Your task to perform on an android device: turn on notifications settings in the gmail app Image 0: 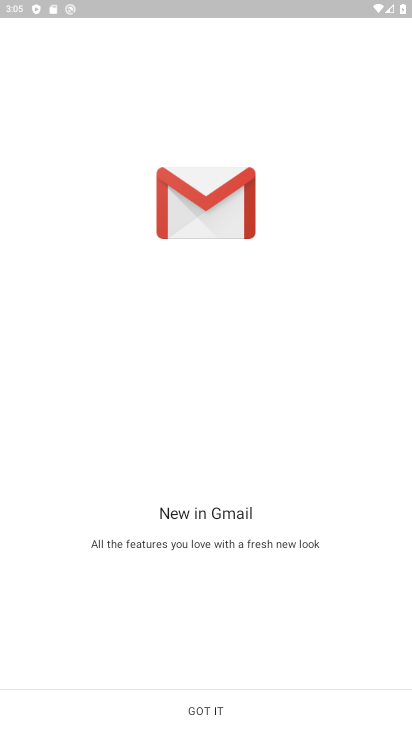
Step 0: press home button
Your task to perform on an android device: turn on notifications settings in the gmail app Image 1: 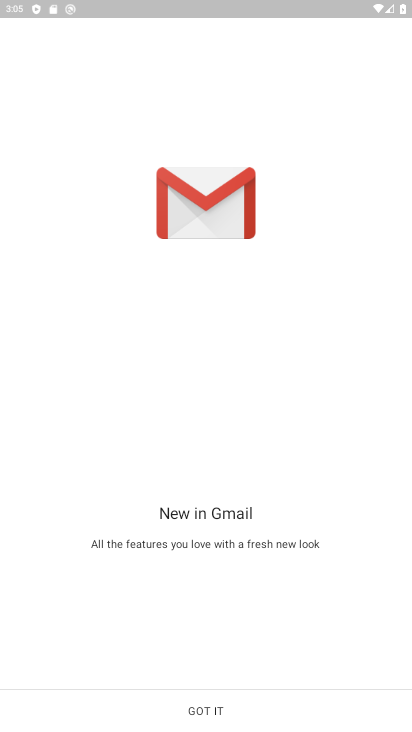
Step 1: click (264, 216)
Your task to perform on an android device: turn on notifications settings in the gmail app Image 2: 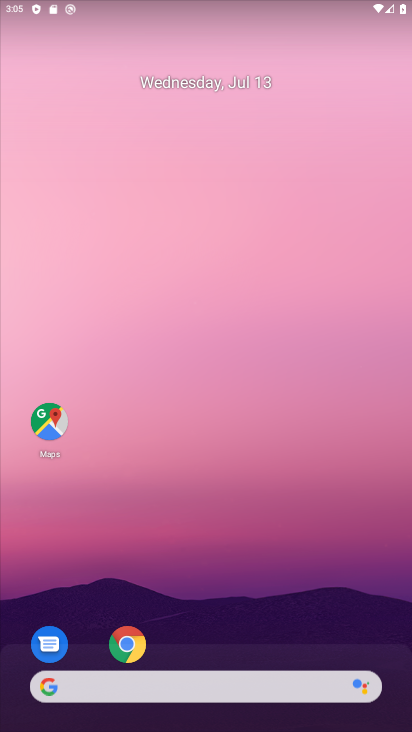
Step 2: drag from (199, 652) to (276, 55)
Your task to perform on an android device: turn on notifications settings in the gmail app Image 3: 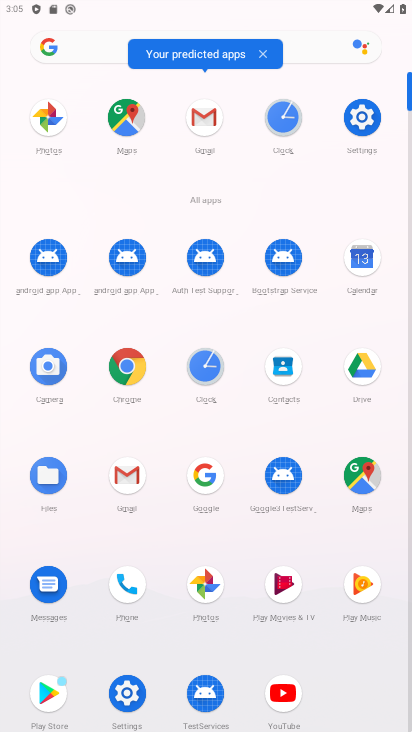
Step 3: click (125, 484)
Your task to perform on an android device: turn on notifications settings in the gmail app Image 4: 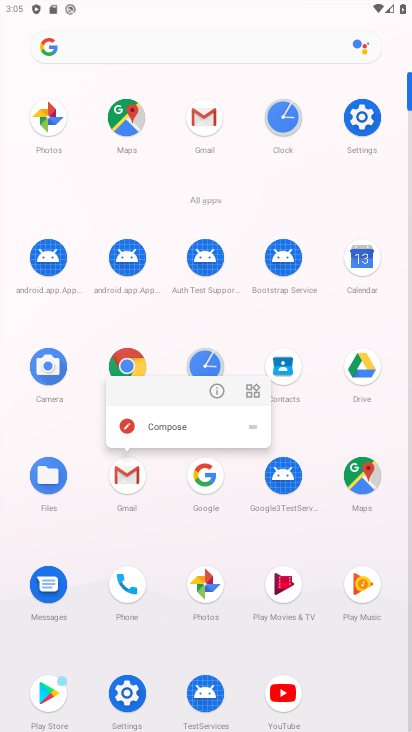
Step 4: click (212, 396)
Your task to perform on an android device: turn on notifications settings in the gmail app Image 5: 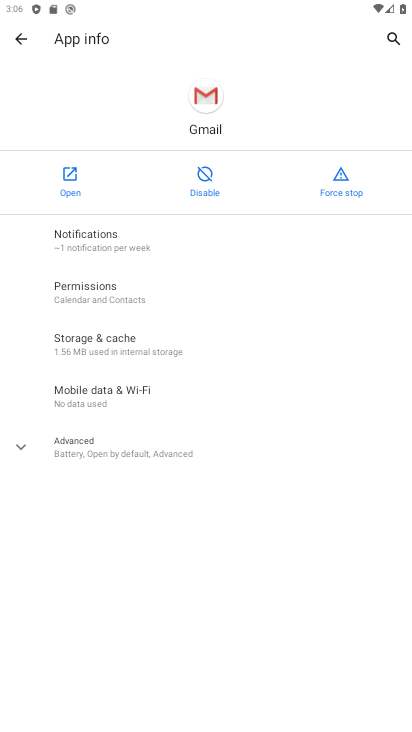
Step 5: click (61, 180)
Your task to perform on an android device: turn on notifications settings in the gmail app Image 6: 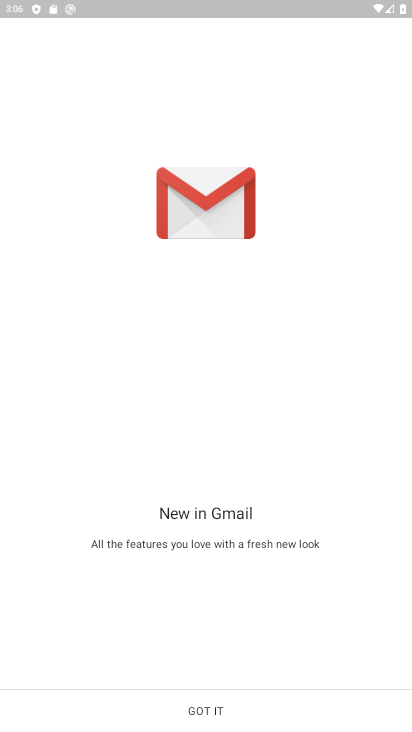
Step 6: click (203, 711)
Your task to perform on an android device: turn on notifications settings in the gmail app Image 7: 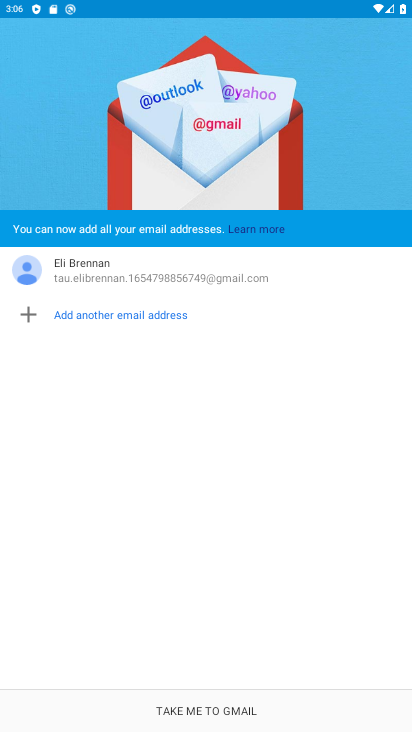
Step 7: click (190, 706)
Your task to perform on an android device: turn on notifications settings in the gmail app Image 8: 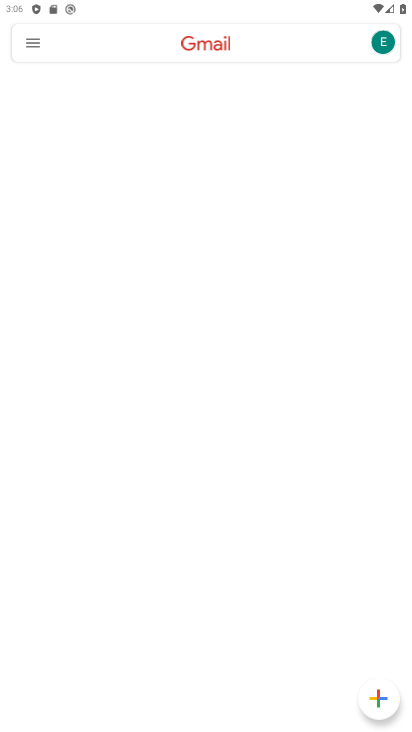
Step 8: click (189, 712)
Your task to perform on an android device: turn on notifications settings in the gmail app Image 9: 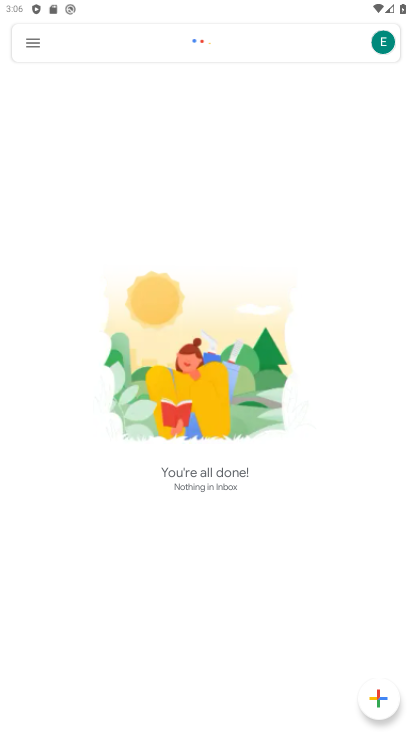
Step 9: click (27, 48)
Your task to perform on an android device: turn on notifications settings in the gmail app Image 10: 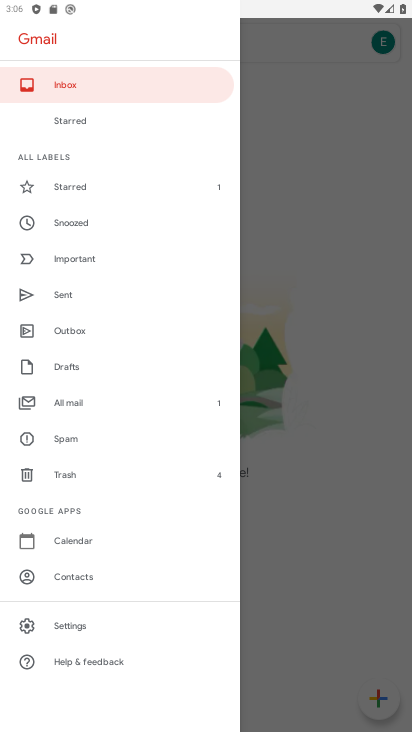
Step 10: click (68, 621)
Your task to perform on an android device: turn on notifications settings in the gmail app Image 11: 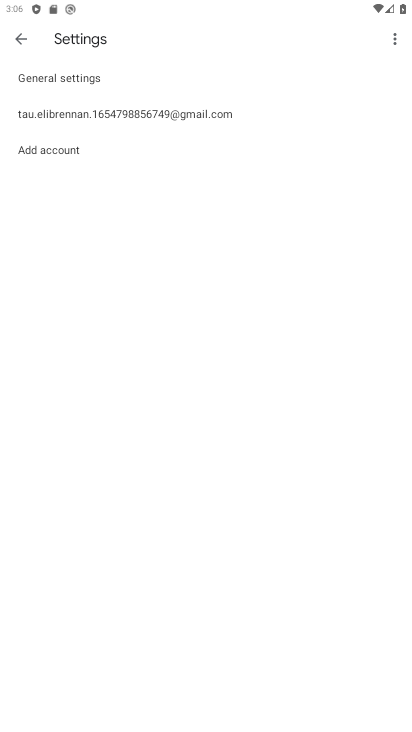
Step 11: click (88, 112)
Your task to perform on an android device: turn on notifications settings in the gmail app Image 12: 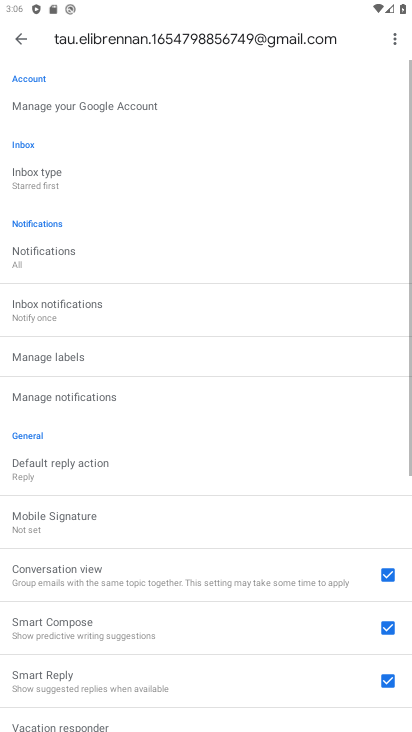
Step 12: drag from (139, 611) to (184, 417)
Your task to perform on an android device: turn on notifications settings in the gmail app Image 13: 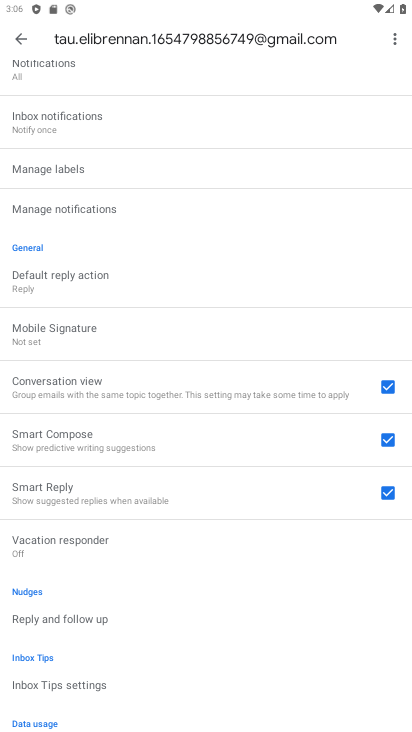
Step 13: drag from (174, 248) to (189, 506)
Your task to perform on an android device: turn on notifications settings in the gmail app Image 14: 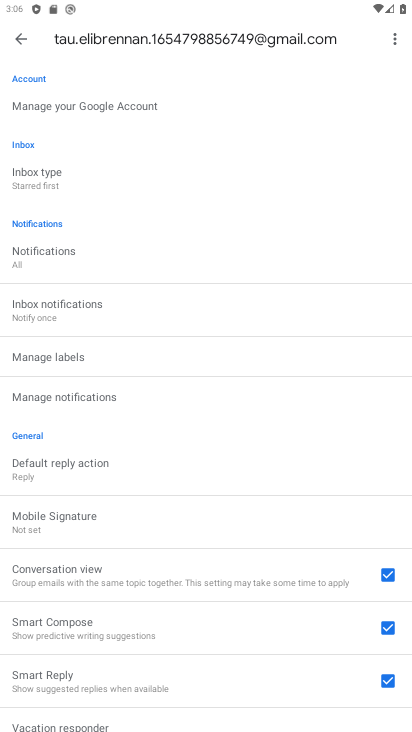
Step 14: click (57, 387)
Your task to perform on an android device: turn on notifications settings in the gmail app Image 15: 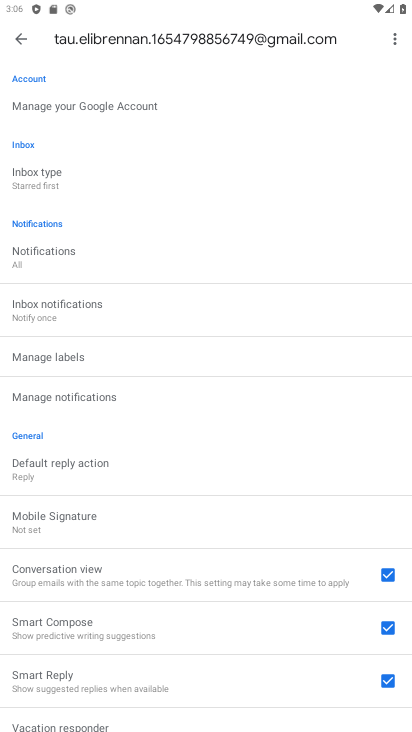
Step 15: click (57, 387)
Your task to perform on an android device: turn on notifications settings in the gmail app Image 16: 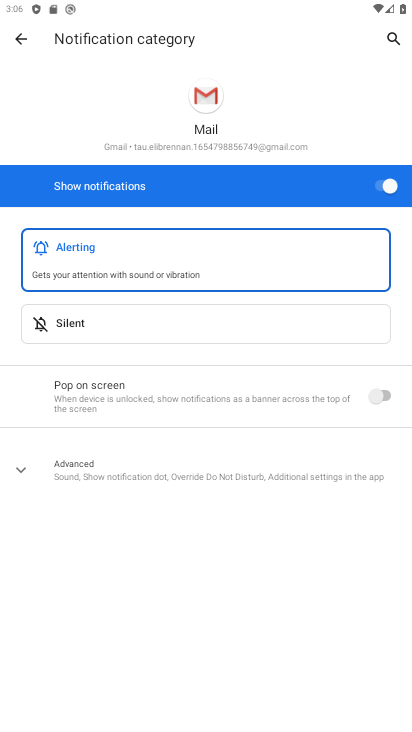
Step 16: task complete